Your task to perform on an android device: toggle priority inbox in the gmail app Image 0: 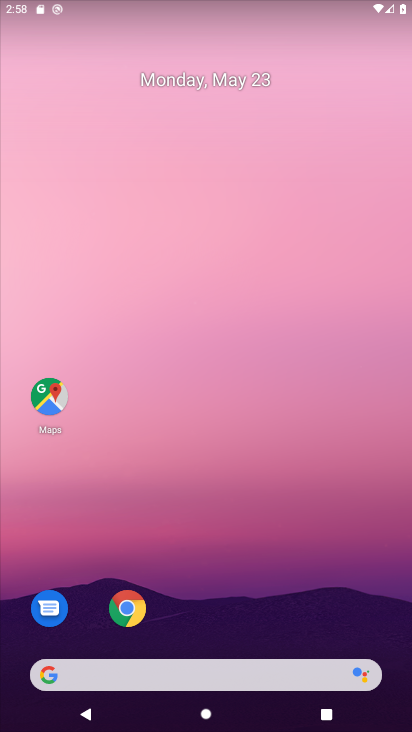
Step 0: drag from (247, 620) to (296, 88)
Your task to perform on an android device: toggle priority inbox in the gmail app Image 1: 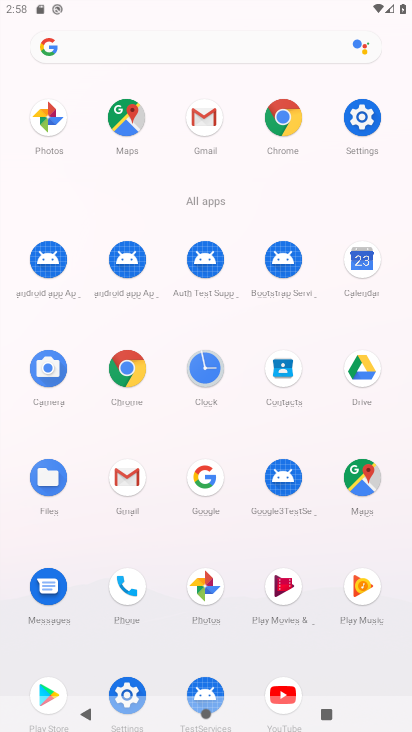
Step 1: click (200, 118)
Your task to perform on an android device: toggle priority inbox in the gmail app Image 2: 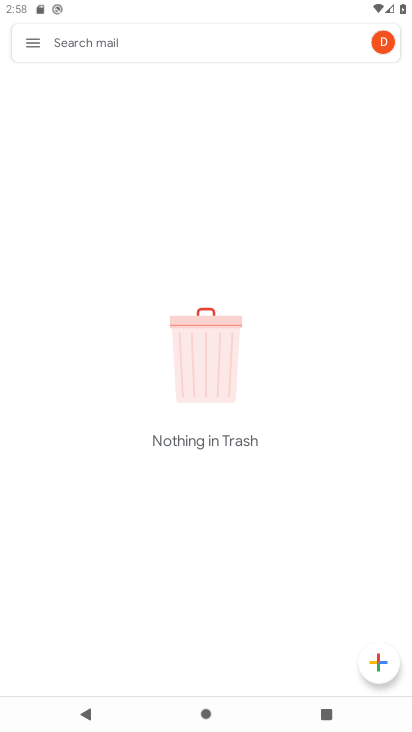
Step 2: click (31, 48)
Your task to perform on an android device: toggle priority inbox in the gmail app Image 3: 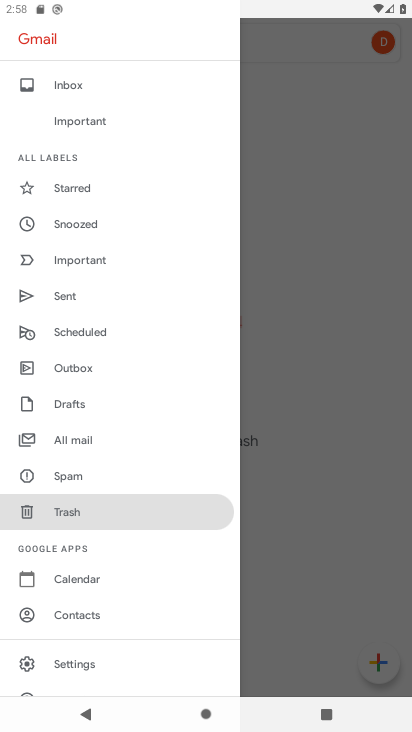
Step 3: click (74, 659)
Your task to perform on an android device: toggle priority inbox in the gmail app Image 4: 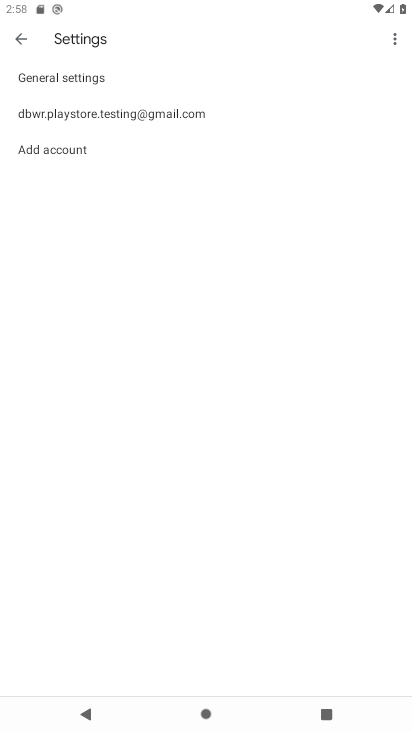
Step 4: click (209, 113)
Your task to perform on an android device: toggle priority inbox in the gmail app Image 5: 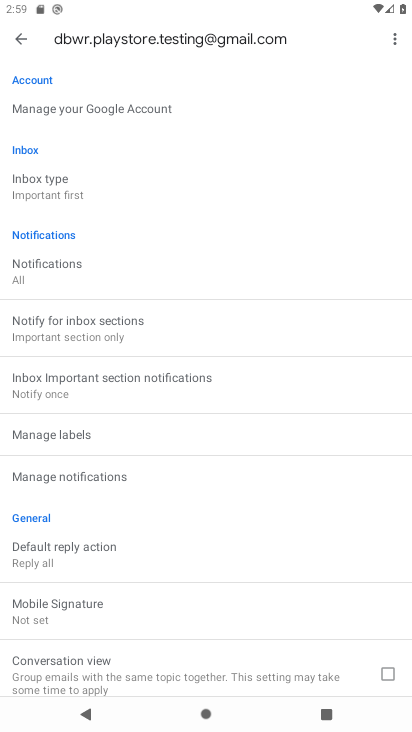
Step 5: click (94, 195)
Your task to perform on an android device: toggle priority inbox in the gmail app Image 6: 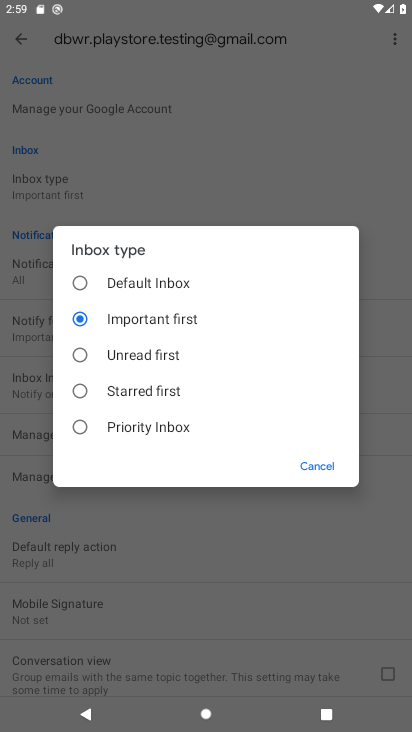
Step 6: click (121, 434)
Your task to perform on an android device: toggle priority inbox in the gmail app Image 7: 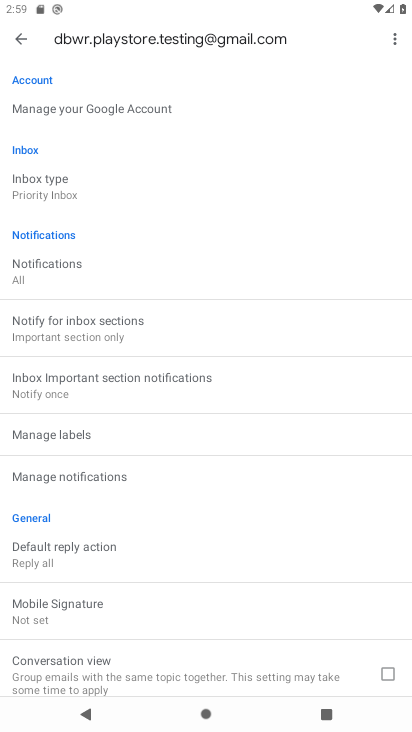
Step 7: task complete